Your task to perform on an android device: Check the settings for the Lyft app Image 0: 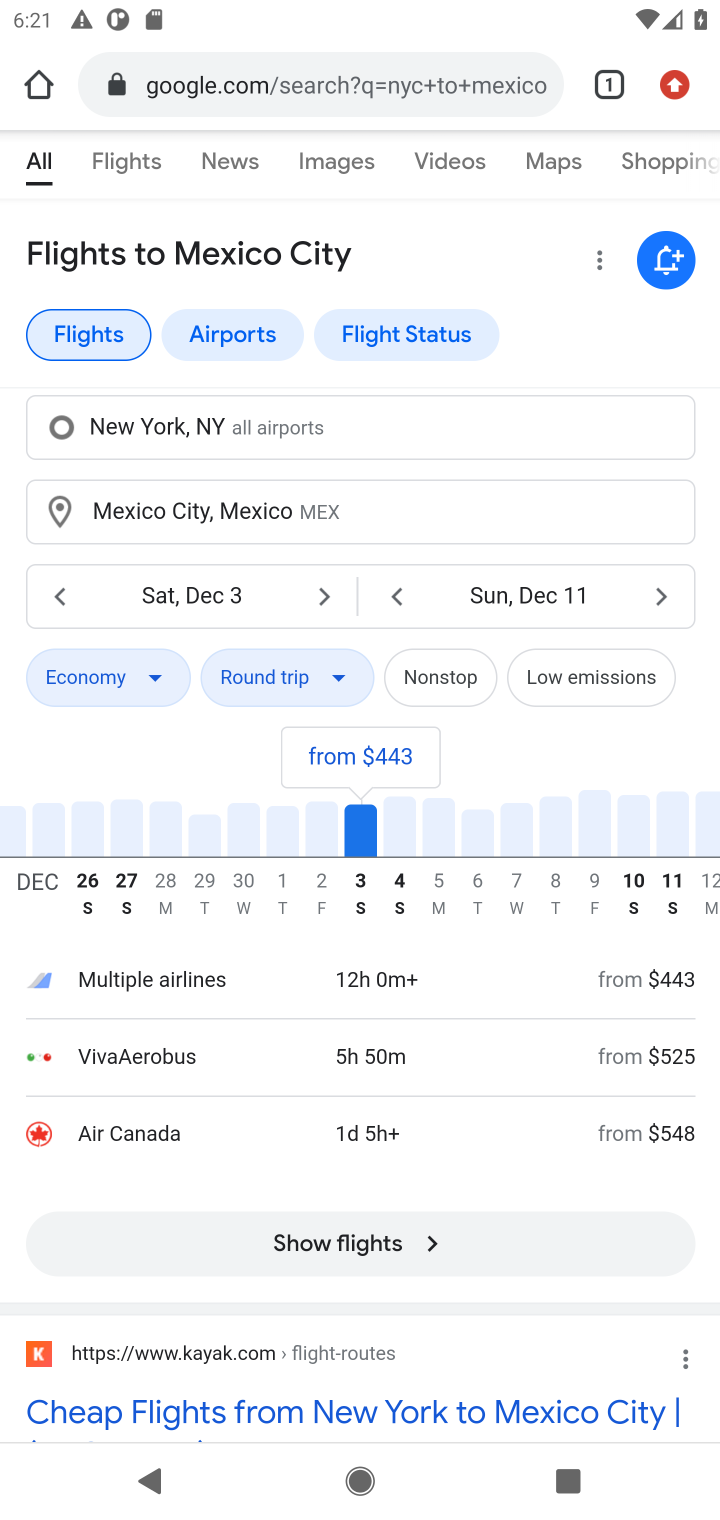
Step 0: press home button
Your task to perform on an android device: Check the settings for the Lyft app Image 1: 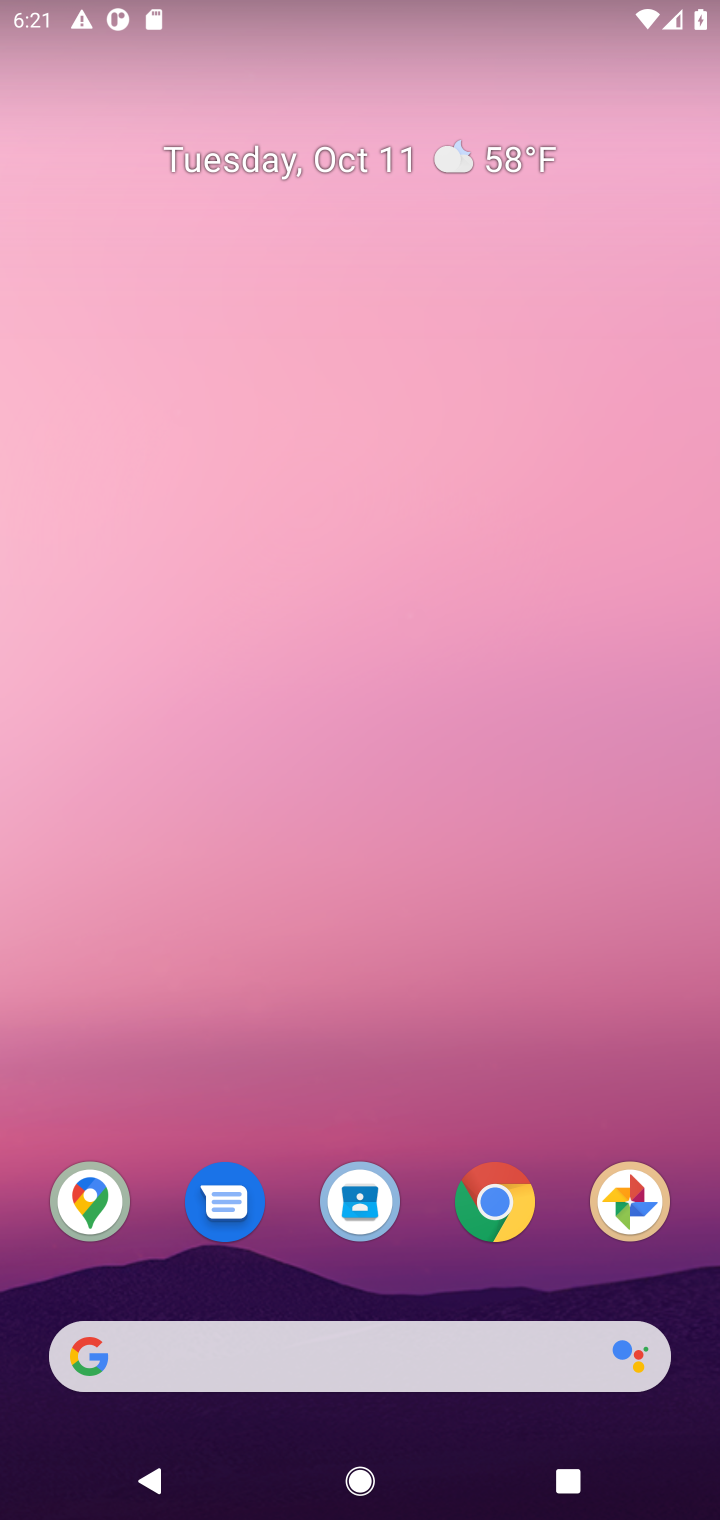
Step 1: drag from (470, 1133) to (424, 89)
Your task to perform on an android device: Check the settings for the Lyft app Image 2: 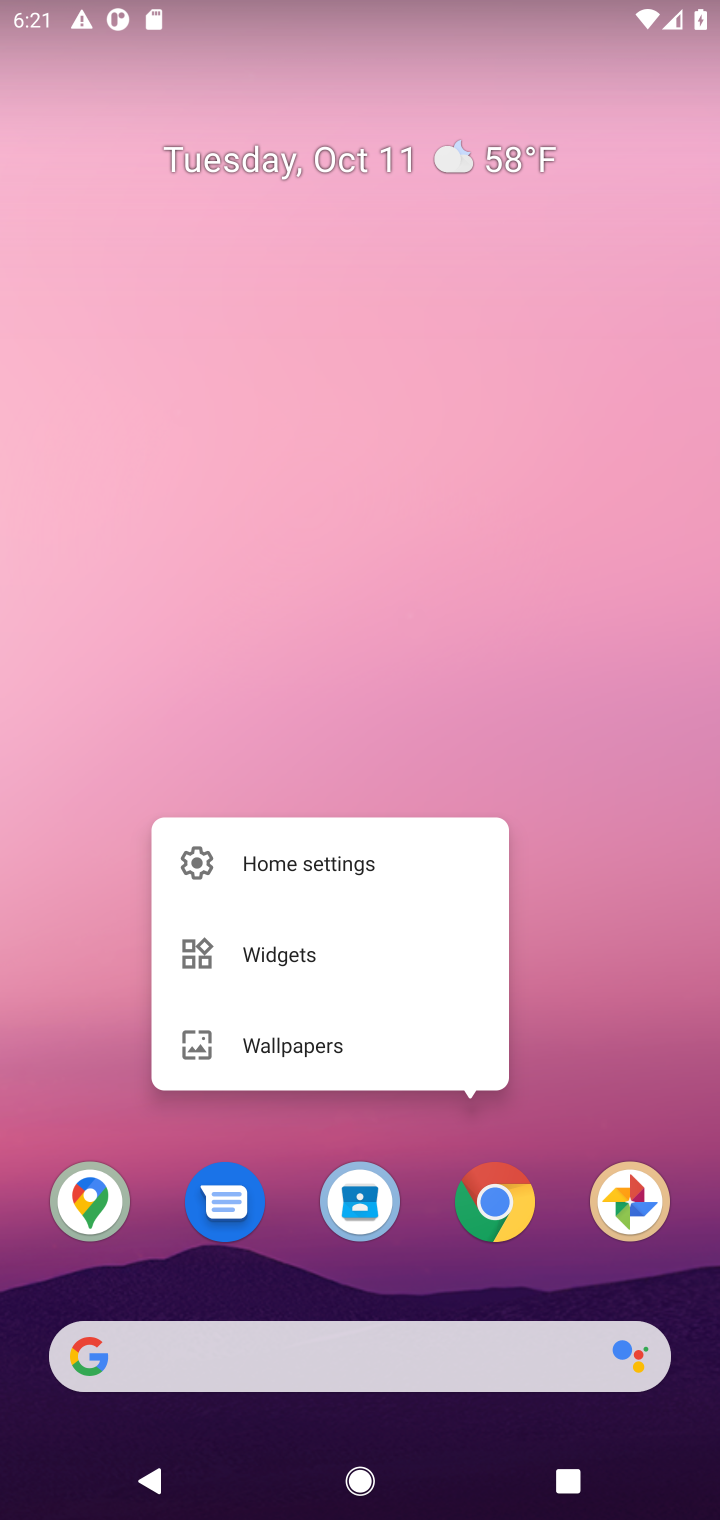
Step 2: click (692, 726)
Your task to perform on an android device: Check the settings for the Lyft app Image 3: 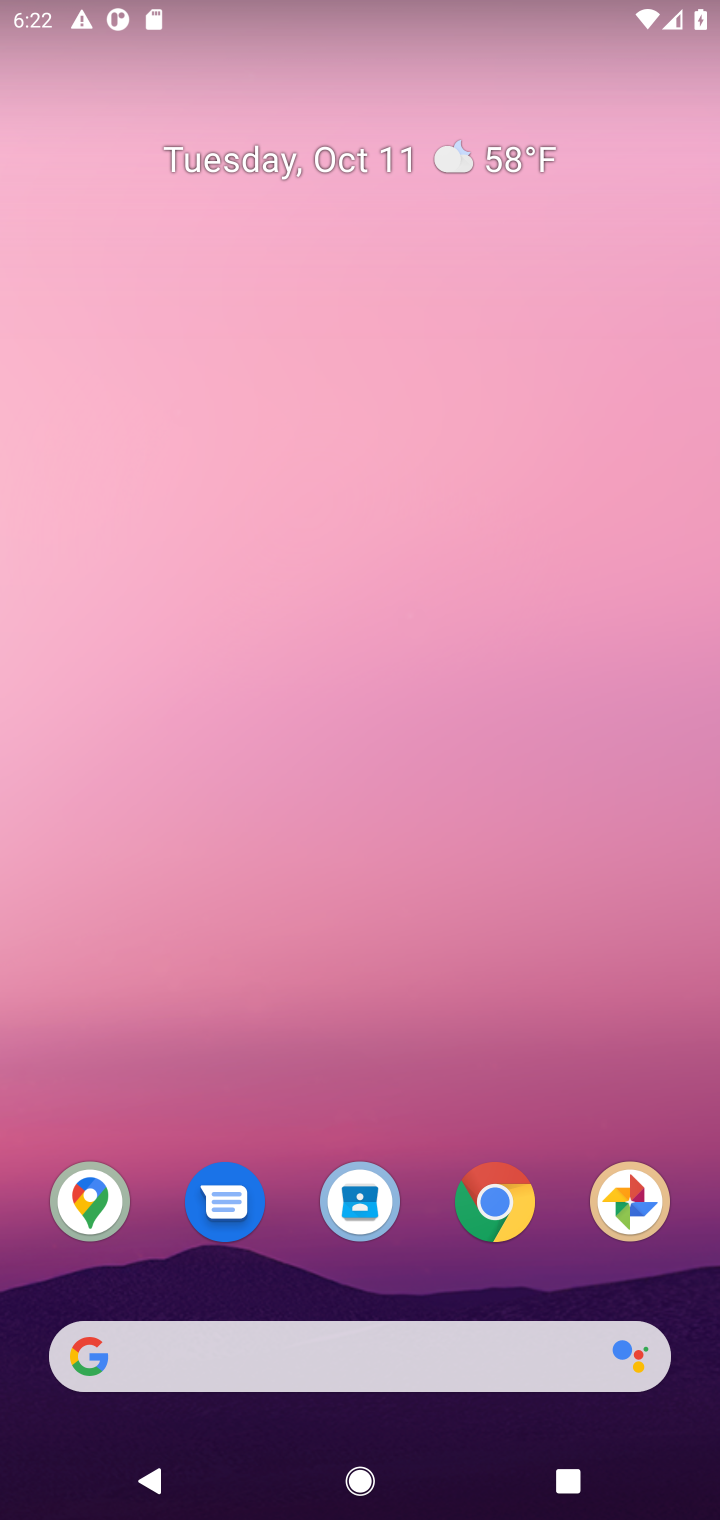
Step 3: drag from (630, 926) to (423, 156)
Your task to perform on an android device: Check the settings for the Lyft app Image 4: 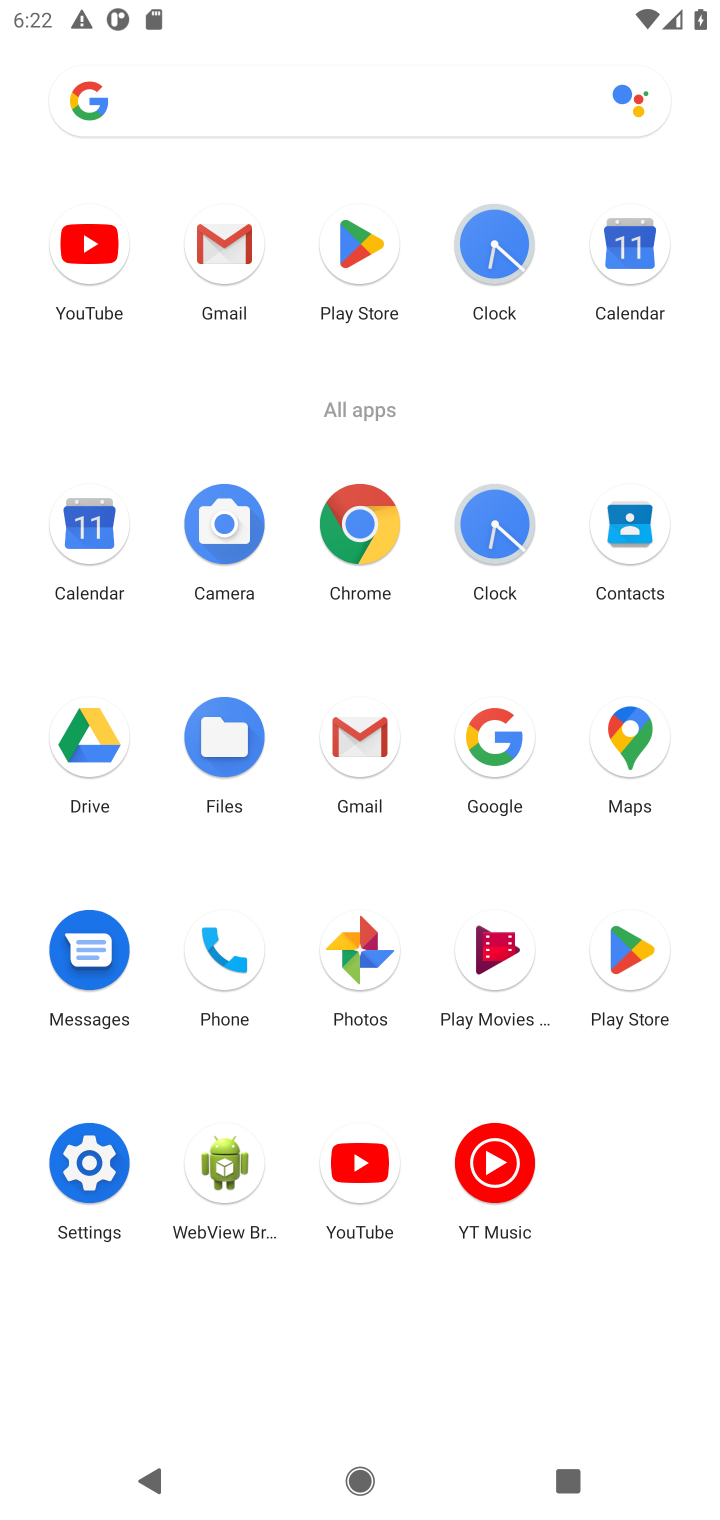
Step 4: click (618, 957)
Your task to perform on an android device: Check the settings for the Lyft app Image 5: 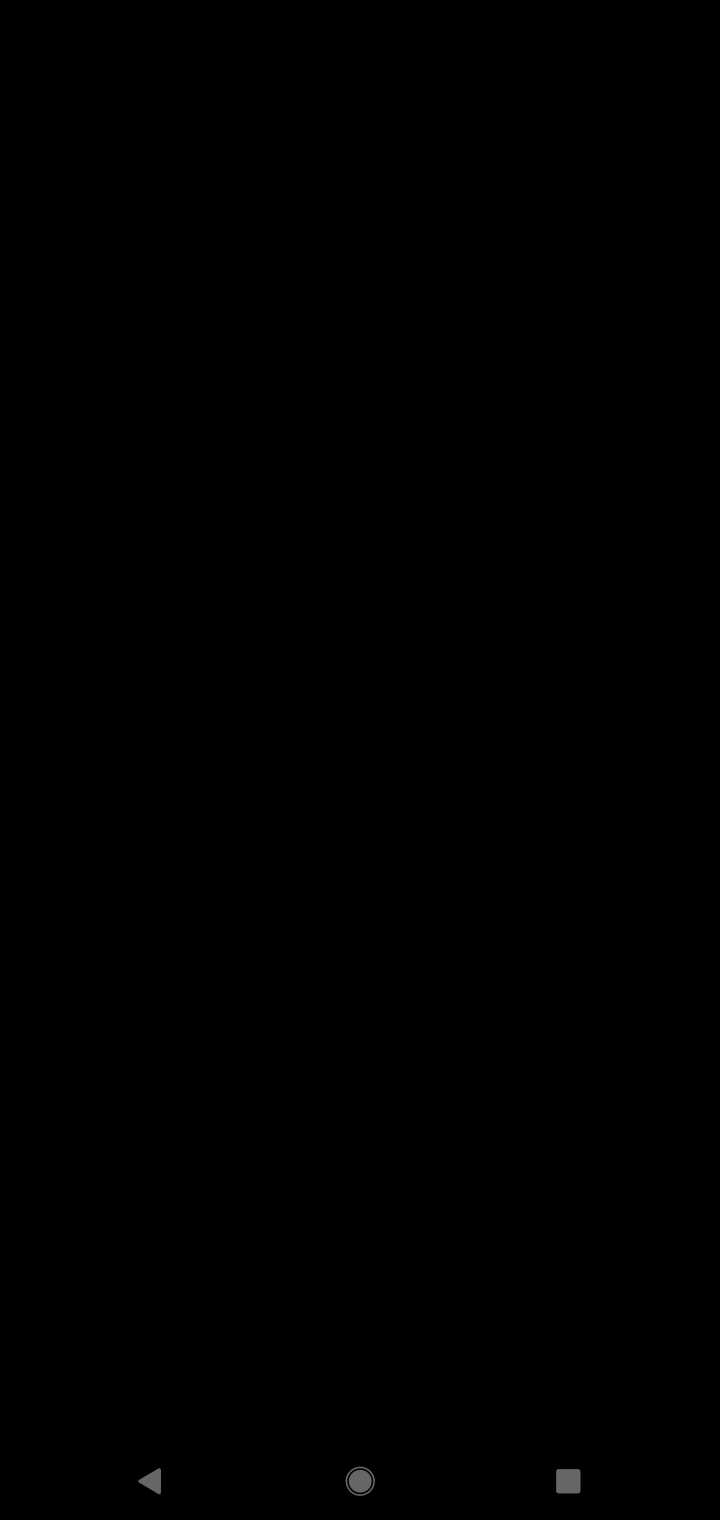
Step 5: task complete